Your task to perform on an android device: set default search engine in the chrome app Image 0: 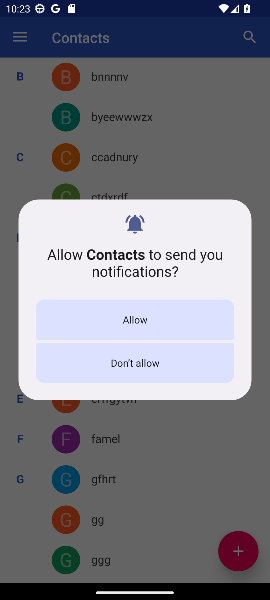
Step 0: press home button
Your task to perform on an android device: set default search engine in the chrome app Image 1: 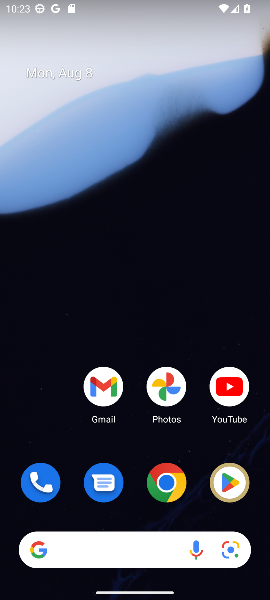
Step 1: click (163, 480)
Your task to perform on an android device: set default search engine in the chrome app Image 2: 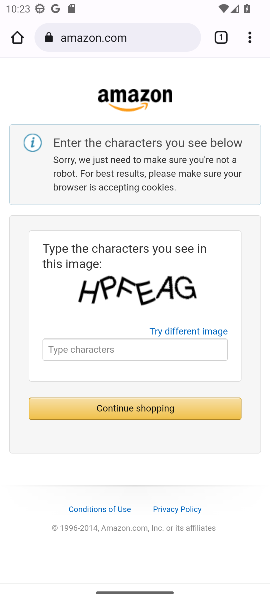
Step 2: click (253, 36)
Your task to perform on an android device: set default search engine in the chrome app Image 3: 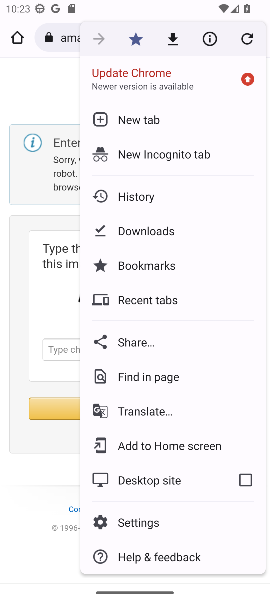
Step 3: click (137, 521)
Your task to perform on an android device: set default search engine in the chrome app Image 4: 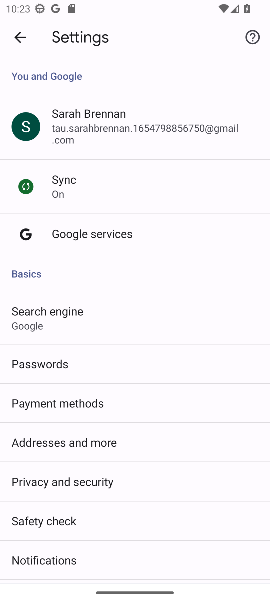
Step 4: drag from (89, 511) to (89, 391)
Your task to perform on an android device: set default search engine in the chrome app Image 5: 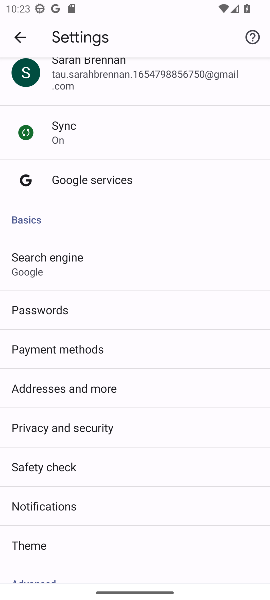
Step 5: click (36, 260)
Your task to perform on an android device: set default search engine in the chrome app Image 6: 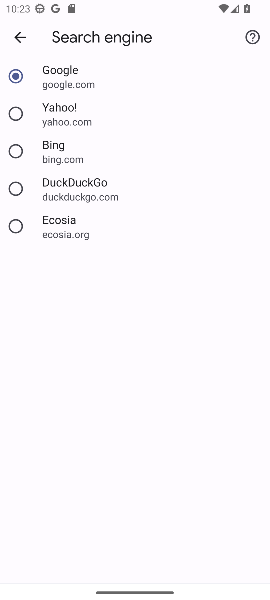
Step 6: click (55, 109)
Your task to perform on an android device: set default search engine in the chrome app Image 7: 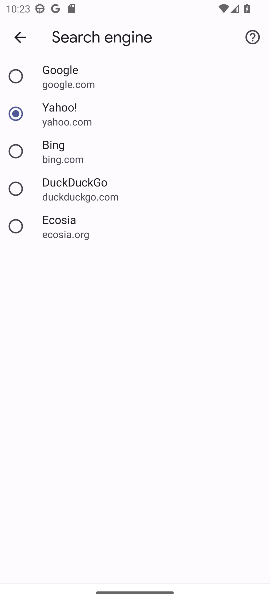
Step 7: task complete